Your task to perform on an android device: Show the shopping cart on target.com. Add "logitech g903" to the cart on target.com Image 0: 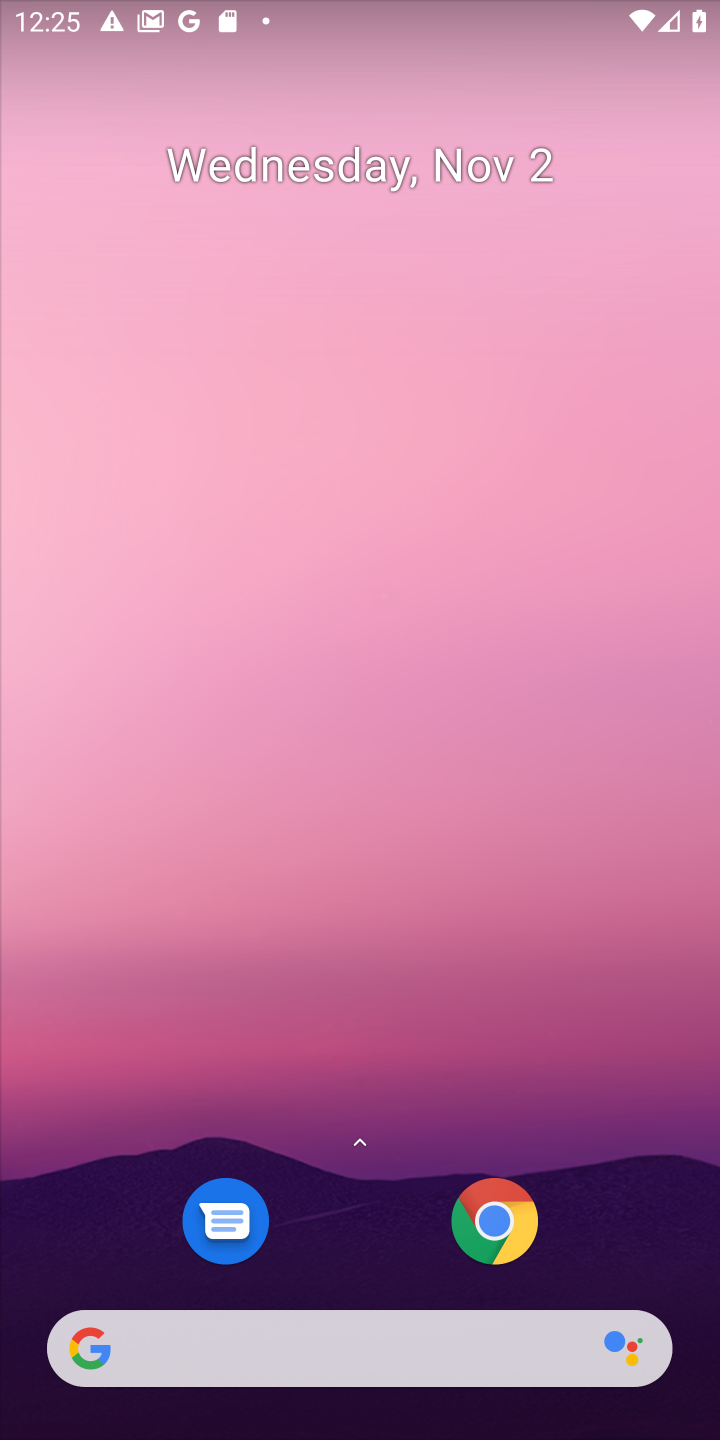
Step 0: task complete